Your task to perform on an android device: toggle javascript in the chrome app Image 0: 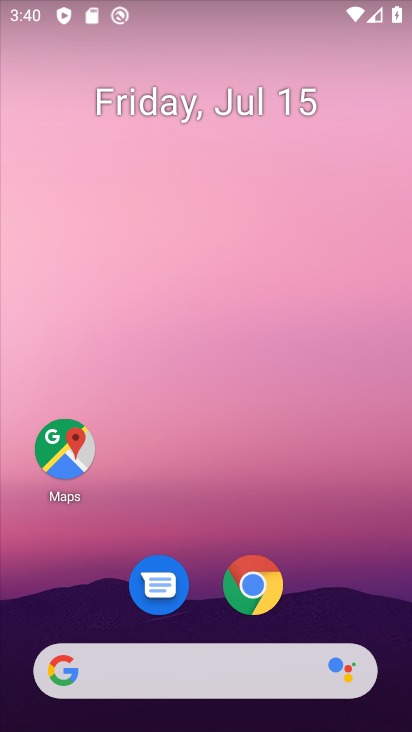
Step 0: click (263, 587)
Your task to perform on an android device: toggle javascript in the chrome app Image 1: 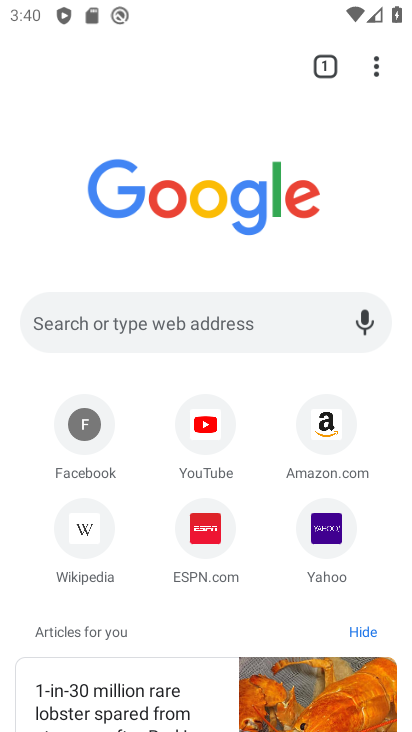
Step 1: click (370, 69)
Your task to perform on an android device: toggle javascript in the chrome app Image 2: 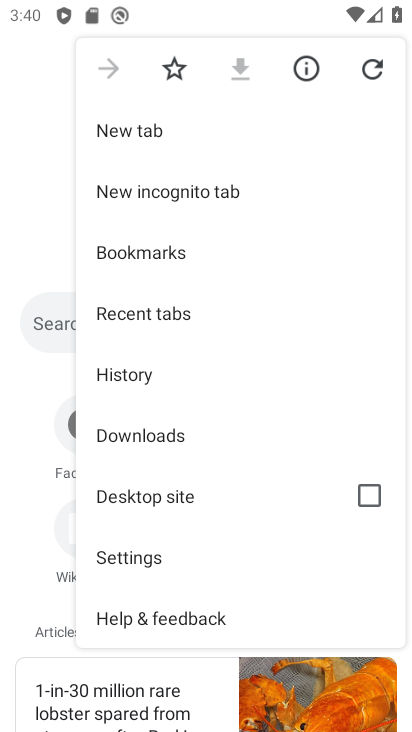
Step 2: click (153, 556)
Your task to perform on an android device: toggle javascript in the chrome app Image 3: 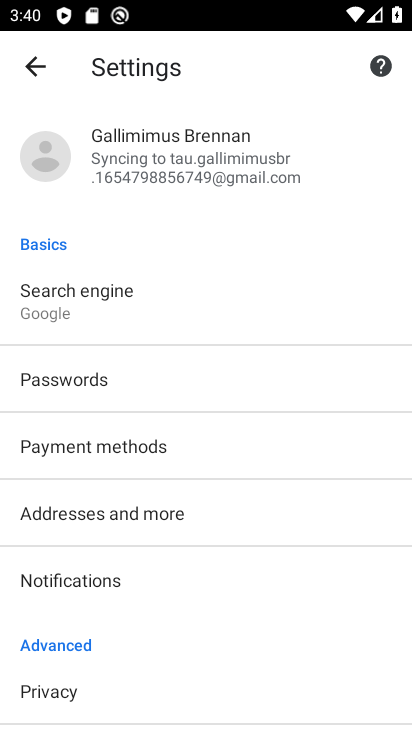
Step 3: drag from (205, 642) to (224, 209)
Your task to perform on an android device: toggle javascript in the chrome app Image 4: 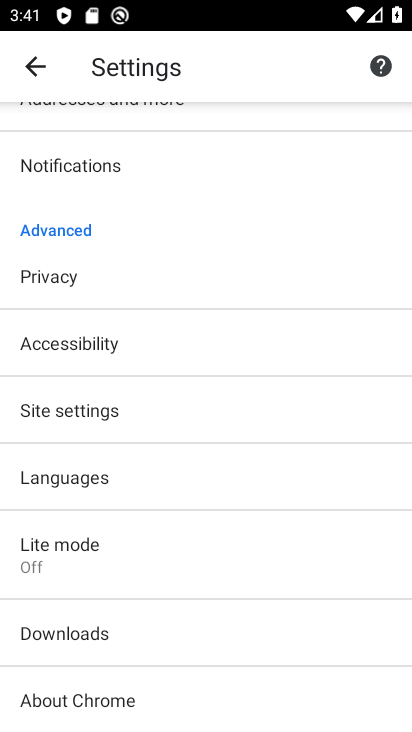
Step 4: click (108, 413)
Your task to perform on an android device: toggle javascript in the chrome app Image 5: 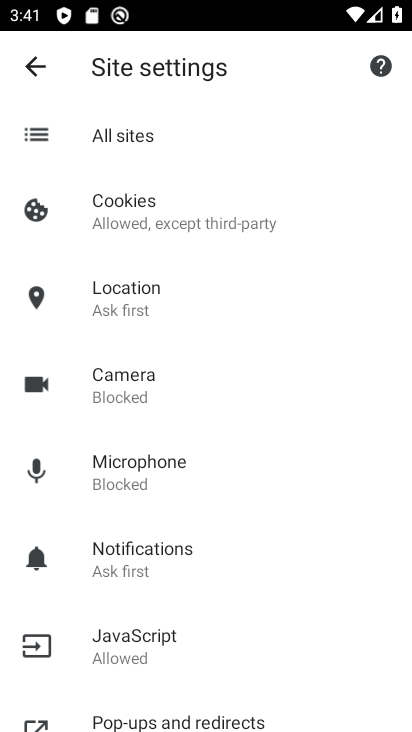
Step 5: click (152, 643)
Your task to perform on an android device: toggle javascript in the chrome app Image 6: 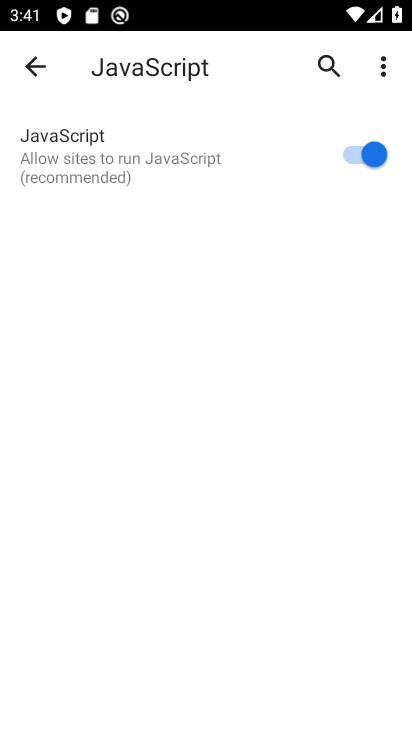
Step 6: click (361, 156)
Your task to perform on an android device: toggle javascript in the chrome app Image 7: 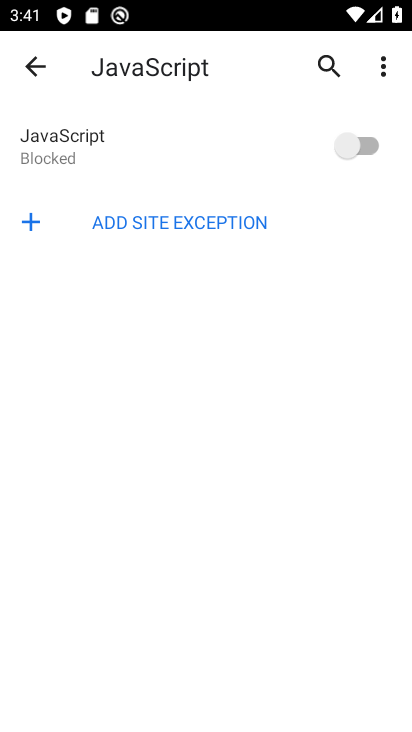
Step 7: task complete